Your task to perform on an android device: turn on bluetooth scan Image 0: 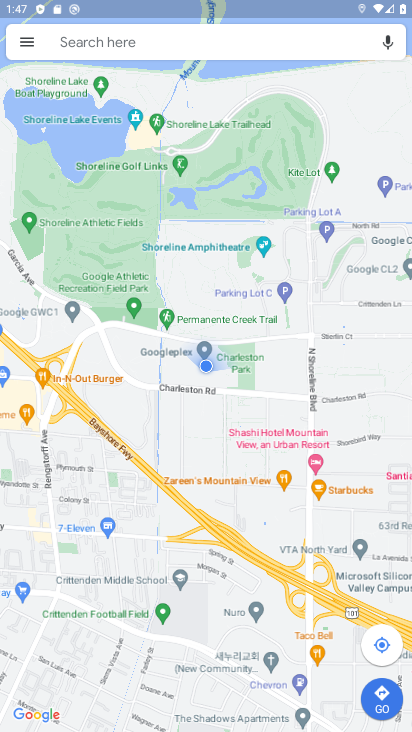
Step 0: press back button
Your task to perform on an android device: turn on bluetooth scan Image 1: 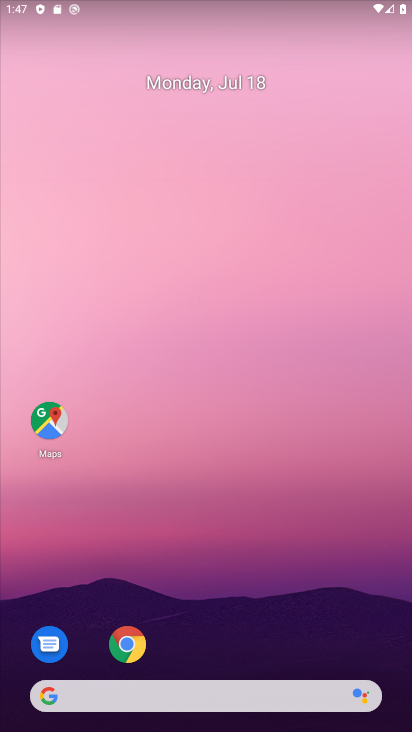
Step 1: drag from (223, 711) to (181, 210)
Your task to perform on an android device: turn on bluetooth scan Image 2: 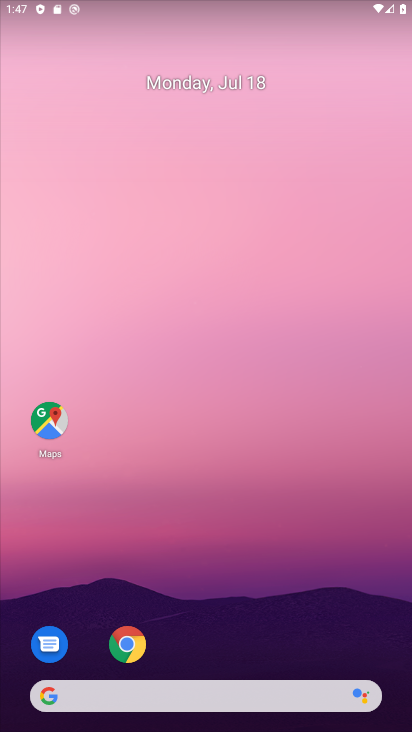
Step 2: drag from (220, 633) to (121, 245)
Your task to perform on an android device: turn on bluetooth scan Image 3: 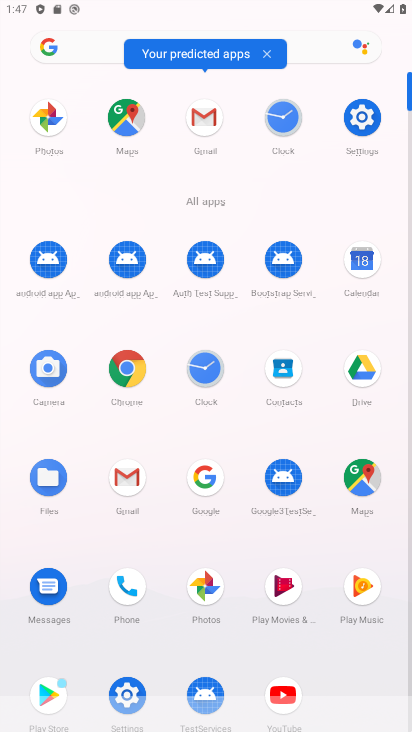
Step 3: click (355, 109)
Your task to perform on an android device: turn on bluetooth scan Image 4: 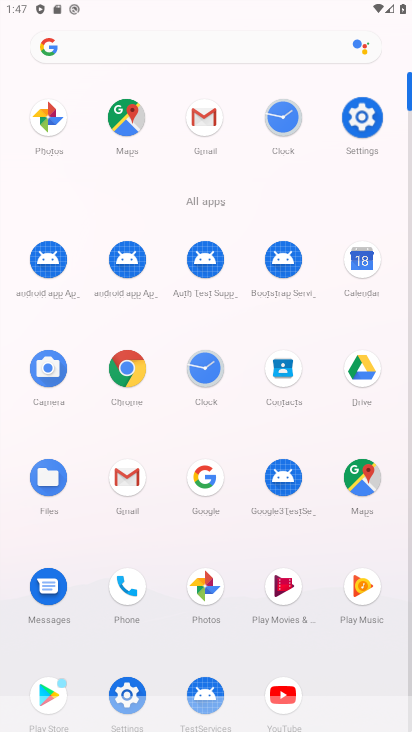
Step 4: click (363, 112)
Your task to perform on an android device: turn on bluetooth scan Image 5: 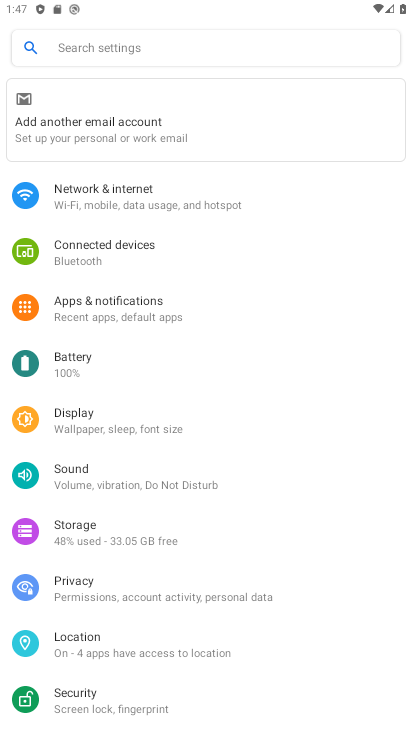
Step 5: click (82, 638)
Your task to perform on an android device: turn on bluetooth scan Image 6: 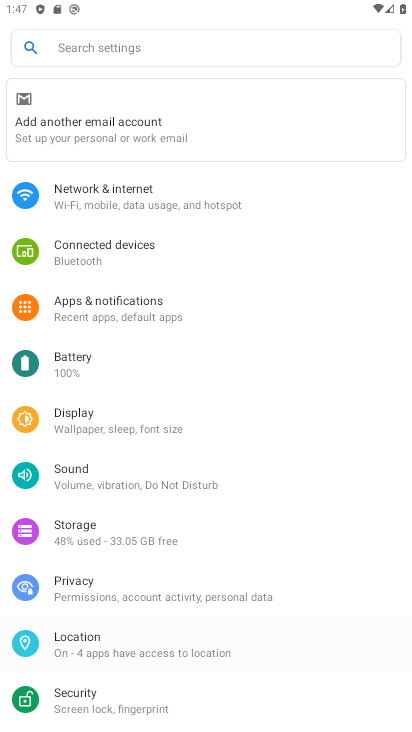
Step 6: click (92, 663)
Your task to perform on an android device: turn on bluetooth scan Image 7: 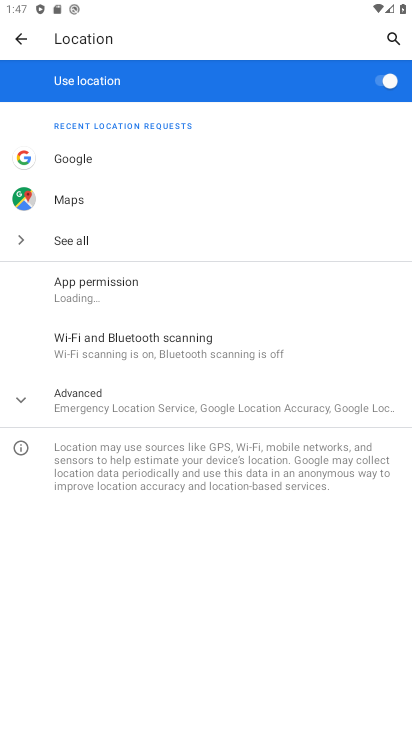
Step 7: click (140, 343)
Your task to perform on an android device: turn on bluetooth scan Image 8: 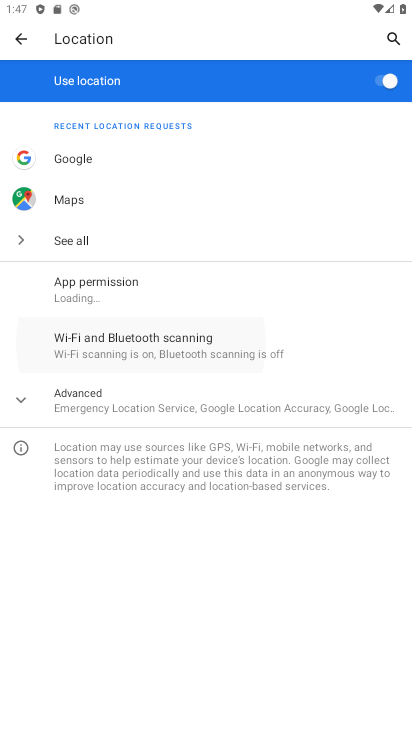
Step 8: click (140, 342)
Your task to perform on an android device: turn on bluetooth scan Image 9: 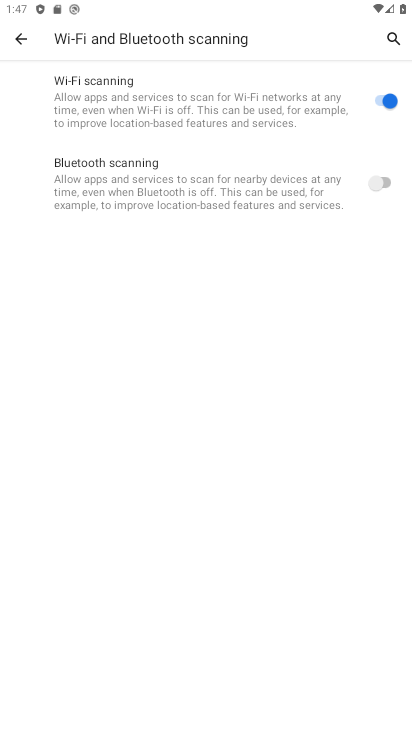
Step 9: click (372, 182)
Your task to perform on an android device: turn on bluetooth scan Image 10: 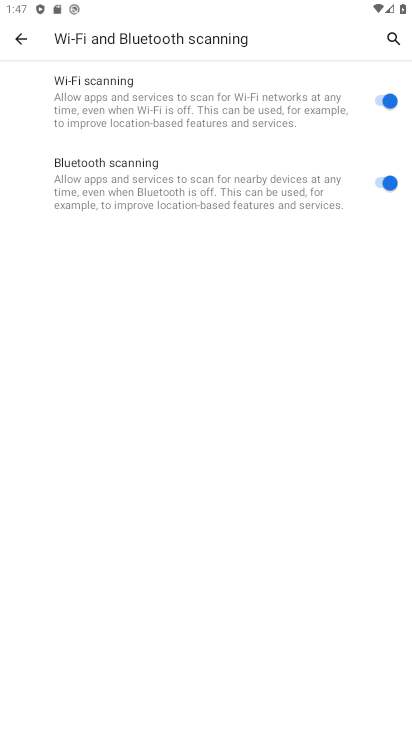
Step 10: task complete